Your task to perform on an android device: turn off translation in the chrome app Image 0: 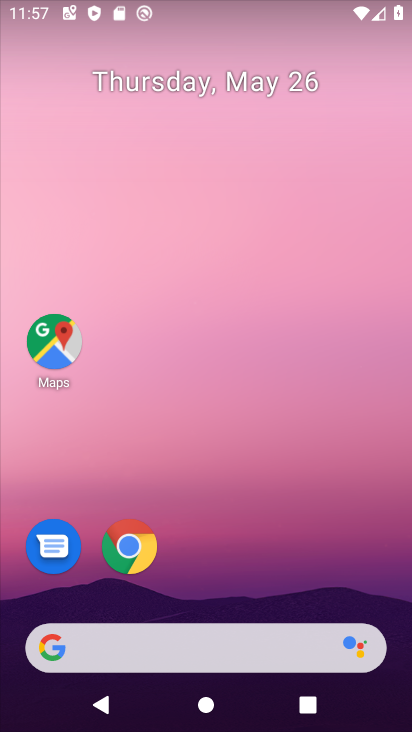
Step 0: click (126, 542)
Your task to perform on an android device: turn off translation in the chrome app Image 1: 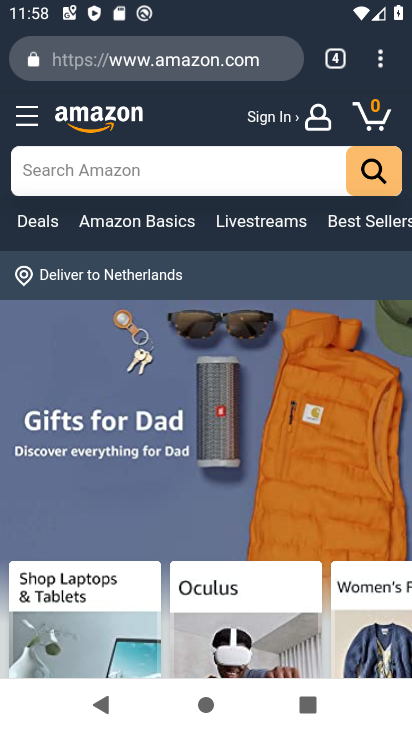
Step 1: click (388, 55)
Your task to perform on an android device: turn off translation in the chrome app Image 2: 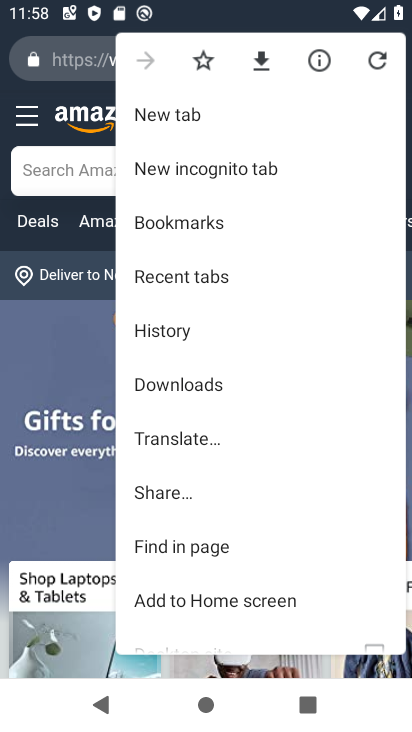
Step 2: drag from (269, 471) to (225, 202)
Your task to perform on an android device: turn off translation in the chrome app Image 3: 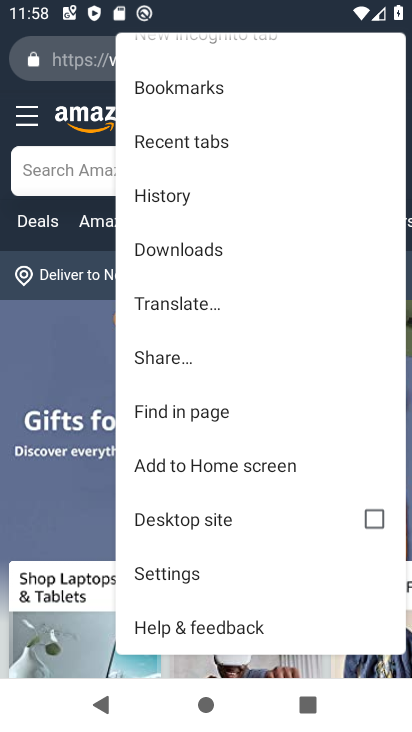
Step 3: click (174, 576)
Your task to perform on an android device: turn off translation in the chrome app Image 4: 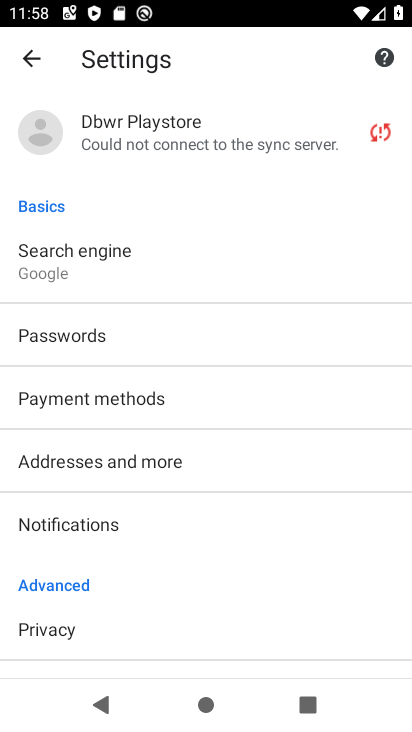
Step 4: drag from (139, 581) to (65, 172)
Your task to perform on an android device: turn off translation in the chrome app Image 5: 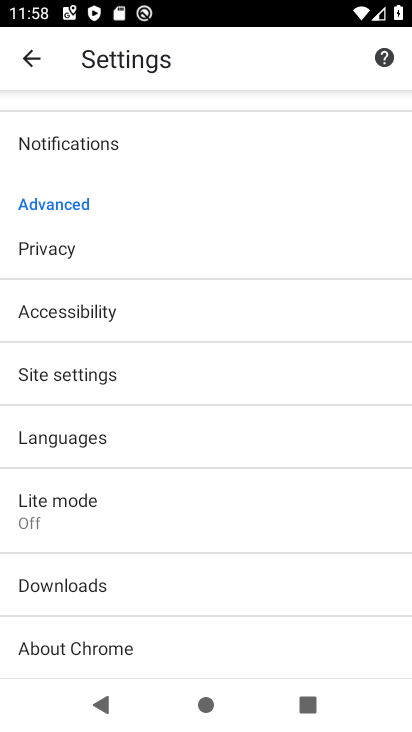
Step 5: click (75, 432)
Your task to perform on an android device: turn off translation in the chrome app Image 6: 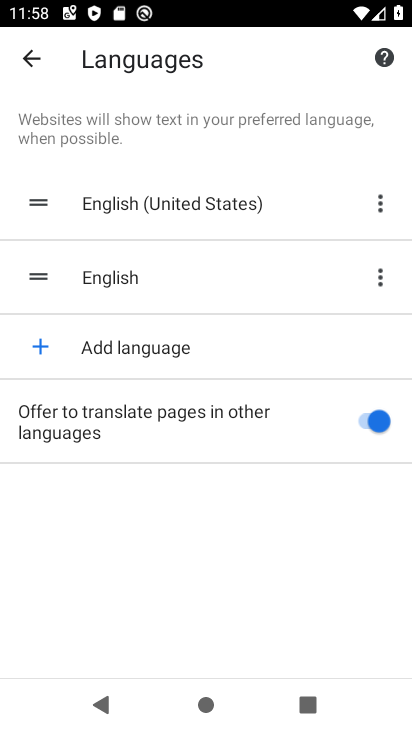
Step 6: click (387, 403)
Your task to perform on an android device: turn off translation in the chrome app Image 7: 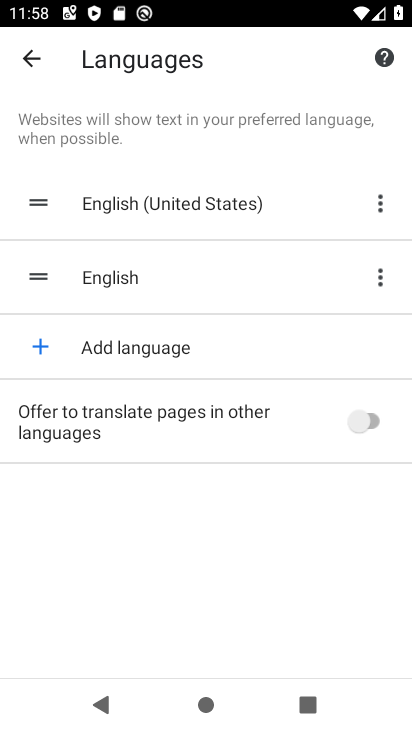
Step 7: task complete